Your task to perform on an android device: all mails in gmail Image 0: 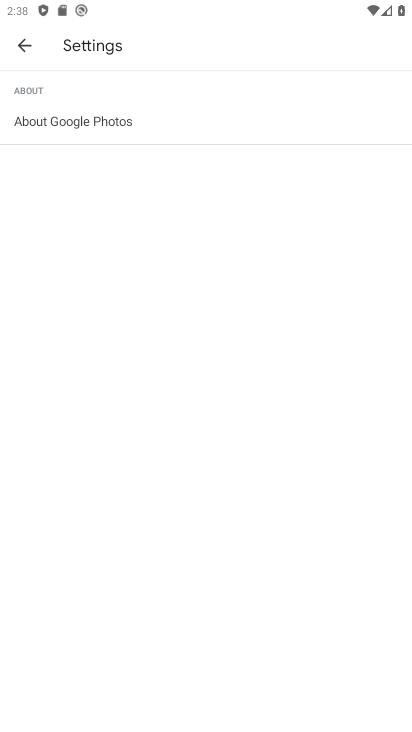
Step 0: press home button
Your task to perform on an android device: all mails in gmail Image 1: 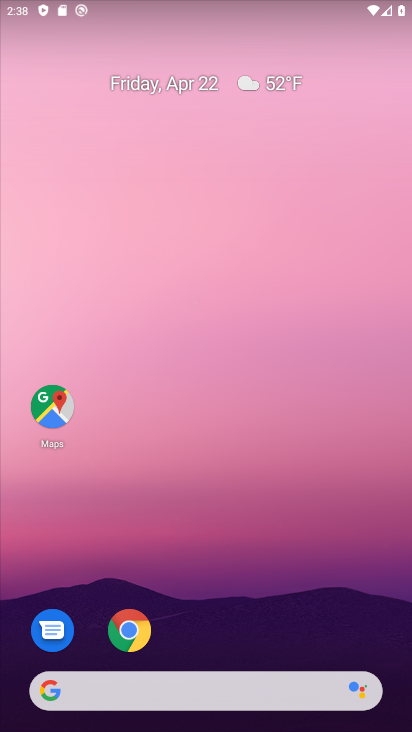
Step 1: drag from (296, 633) to (202, 86)
Your task to perform on an android device: all mails in gmail Image 2: 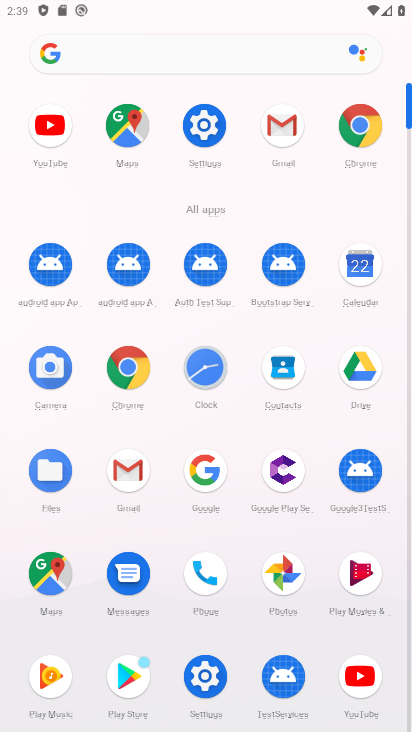
Step 2: click (126, 468)
Your task to perform on an android device: all mails in gmail Image 3: 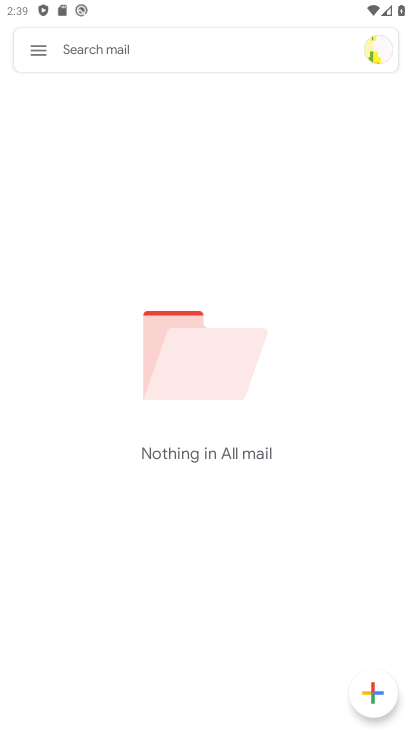
Step 3: click (32, 46)
Your task to perform on an android device: all mails in gmail Image 4: 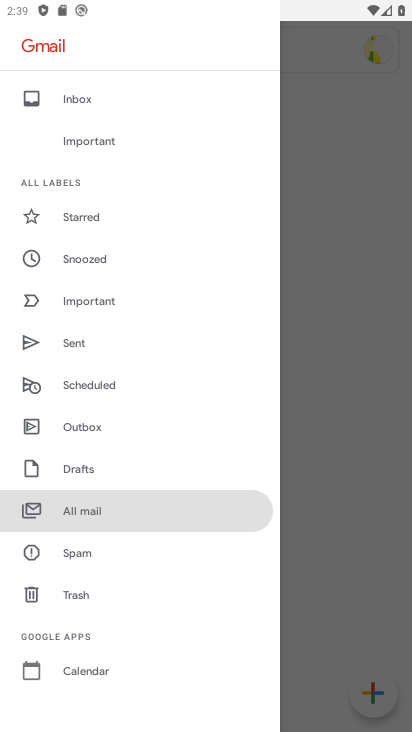
Step 4: click (132, 505)
Your task to perform on an android device: all mails in gmail Image 5: 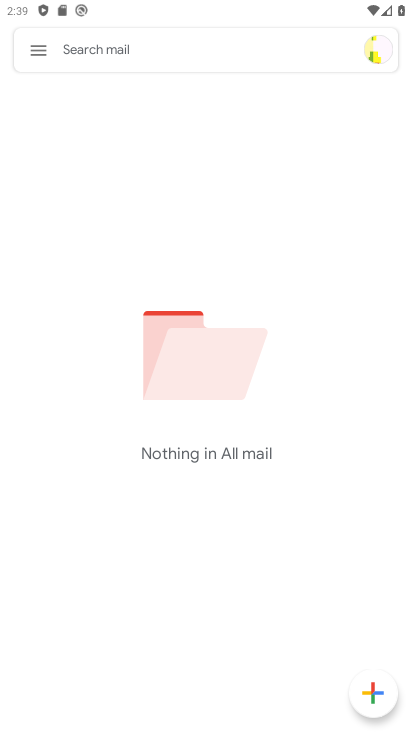
Step 5: task complete